Your task to perform on an android device: toggle improve location accuracy Image 0: 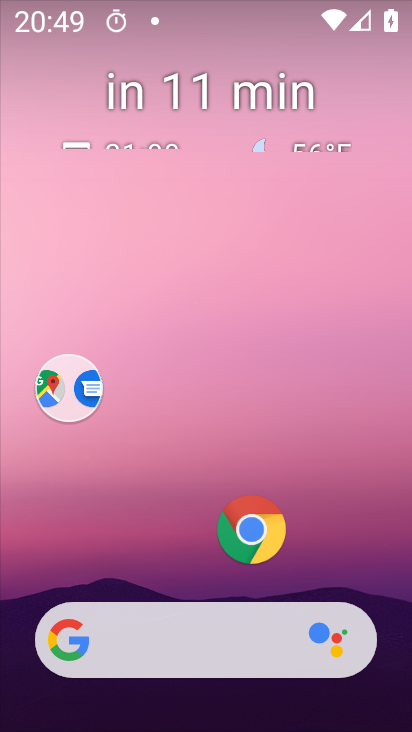
Step 0: drag from (183, 521) to (178, 61)
Your task to perform on an android device: toggle improve location accuracy Image 1: 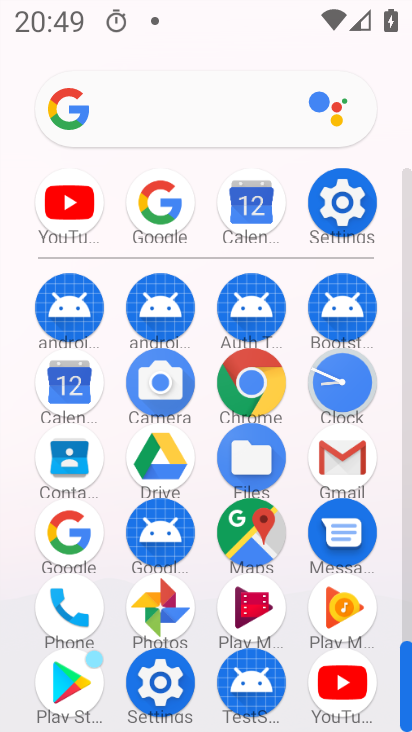
Step 1: click (344, 197)
Your task to perform on an android device: toggle improve location accuracy Image 2: 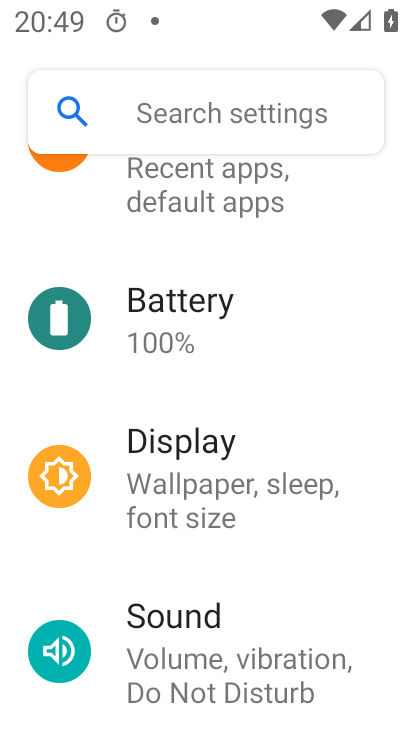
Step 2: drag from (198, 605) to (184, 135)
Your task to perform on an android device: toggle improve location accuracy Image 3: 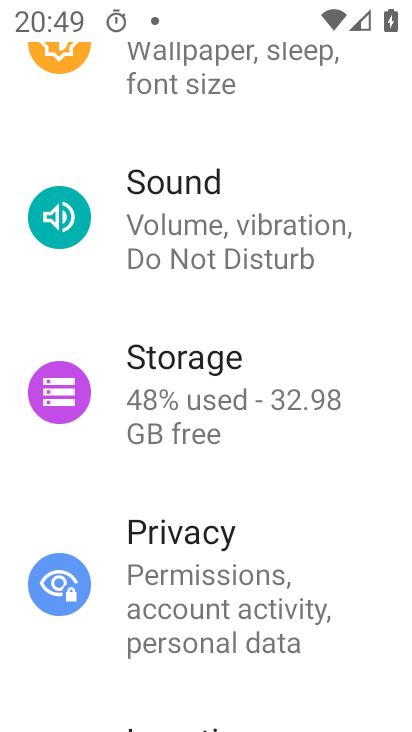
Step 3: drag from (212, 566) to (202, 134)
Your task to perform on an android device: toggle improve location accuracy Image 4: 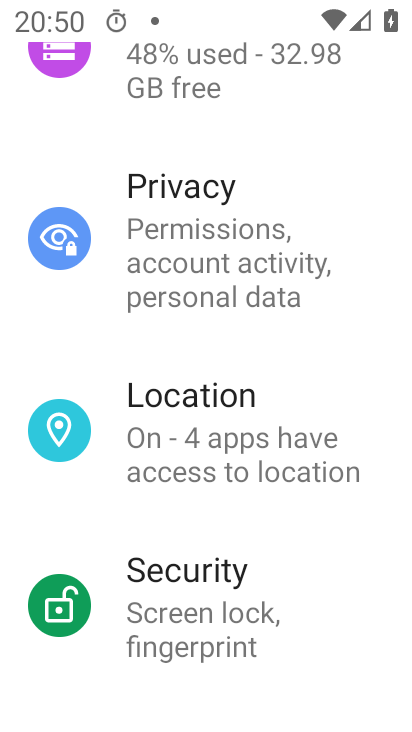
Step 4: click (171, 438)
Your task to perform on an android device: toggle improve location accuracy Image 5: 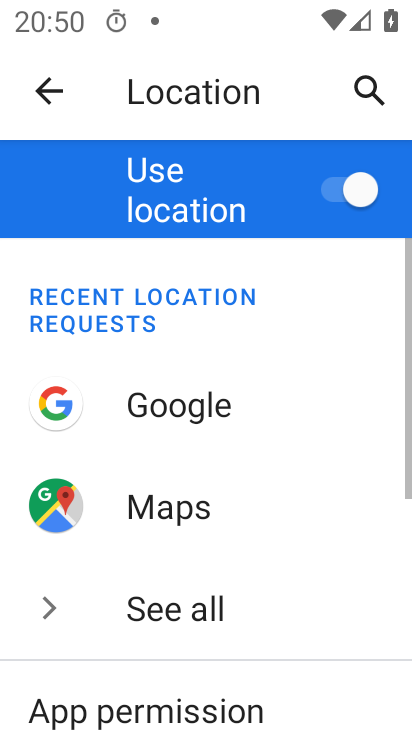
Step 5: drag from (259, 633) to (204, 48)
Your task to perform on an android device: toggle improve location accuracy Image 6: 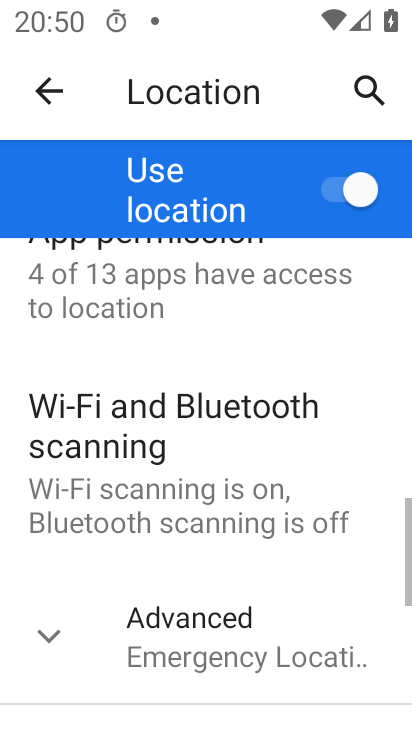
Step 6: drag from (225, 661) to (217, 478)
Your task to perform on an android device: toggle improve location accuracy Image 7: 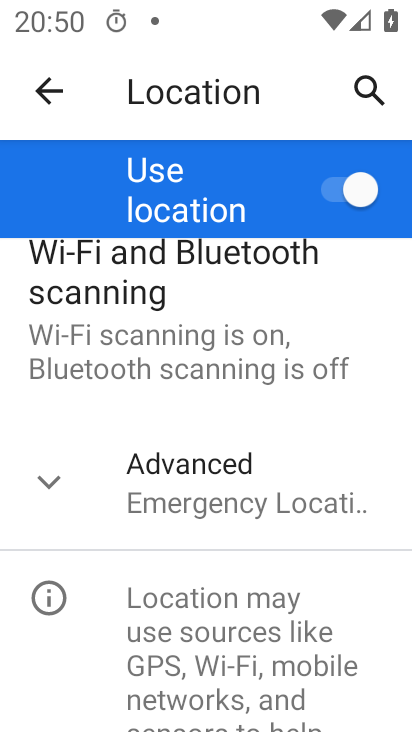
Step 7: click (160, 505)
Your task to perform on an android device: toggle improve location accuracy Image 8: 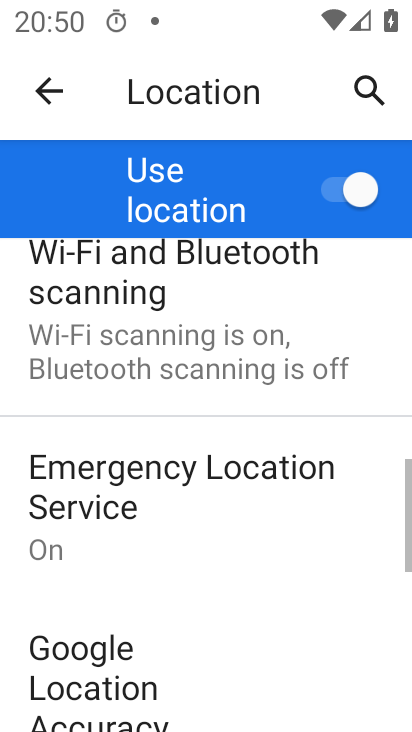
Step 8: drag from (262, 620) to (254, 265)
Your task to perform on an android device: toggle improve location accuracy Image 9: 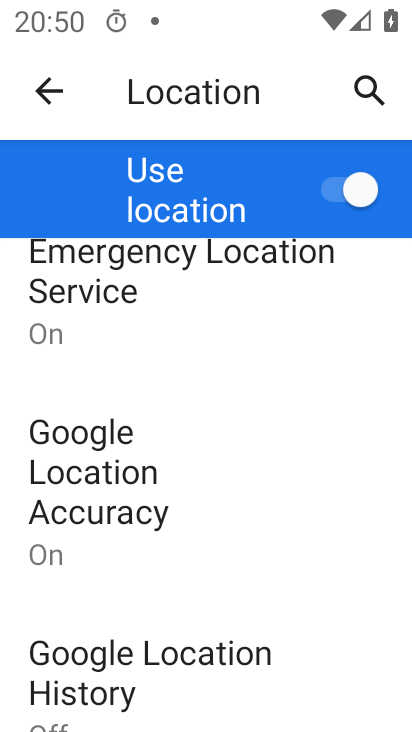
Step 9: click (156, 473)
Your task to perform on an android device: toggle improve location accuracy Image 10: 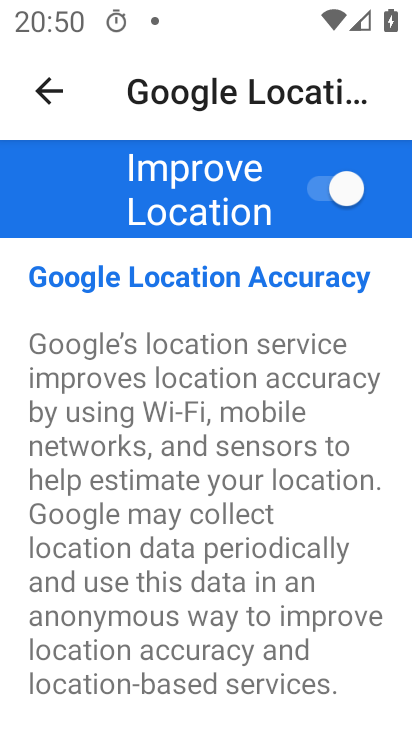
Step 10: click (331, 195)
Your task to perform on an android device: toggle improve location accuracy Image 11: 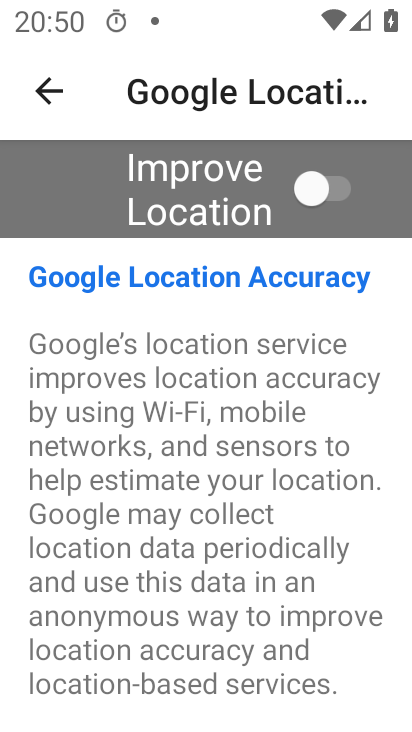
Step 11: task complete